Your task to perform on an android device: see sites visited before in the chrome app Image 0: 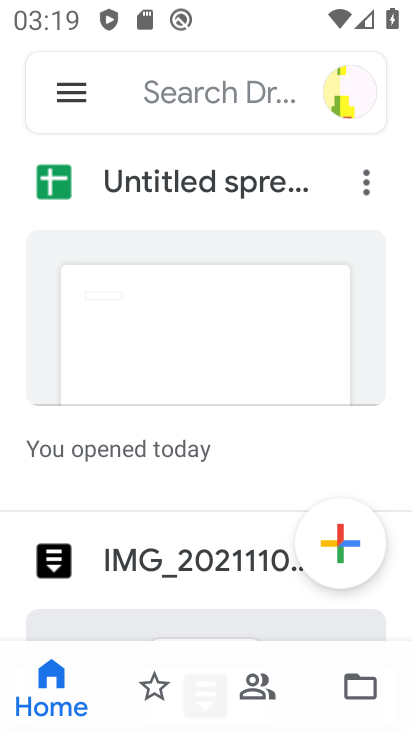
Step 0: press home button
Your task to perform on an android device: see sites visited before in the chrome app Image 1: 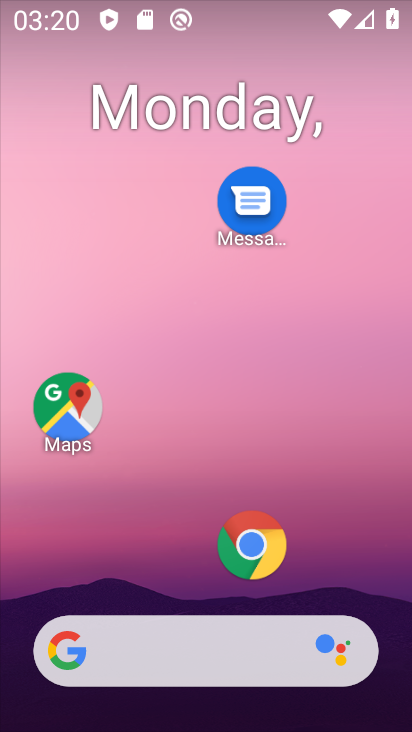
Step 1: click (244, 554)
Your task to perform on an android device: see sites visited before in the chrome app Image 2: 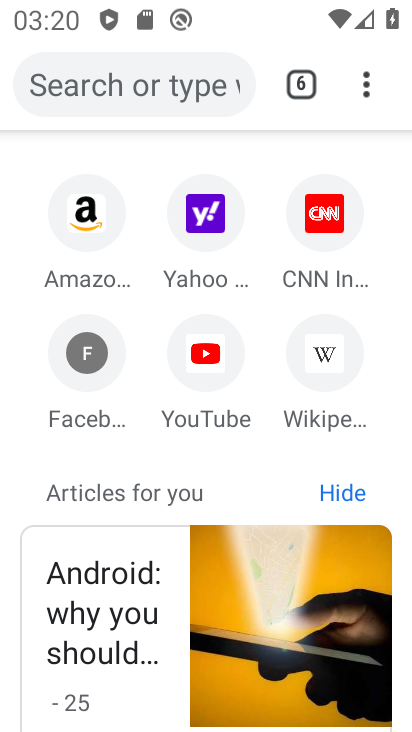
Step 2: task complete